Your task to perform on an android device: check the backup settings in the google photos Image 0: 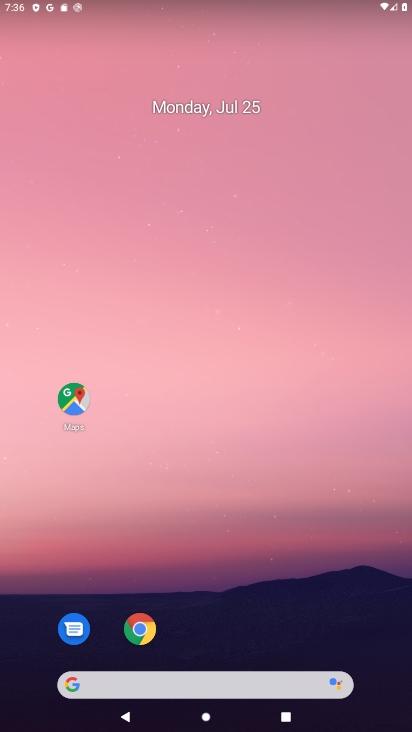
Step 0: drag from (247, 641) to (239, 315)
Your task to perform on an android device: check the backup settings in the google photos Image 1: 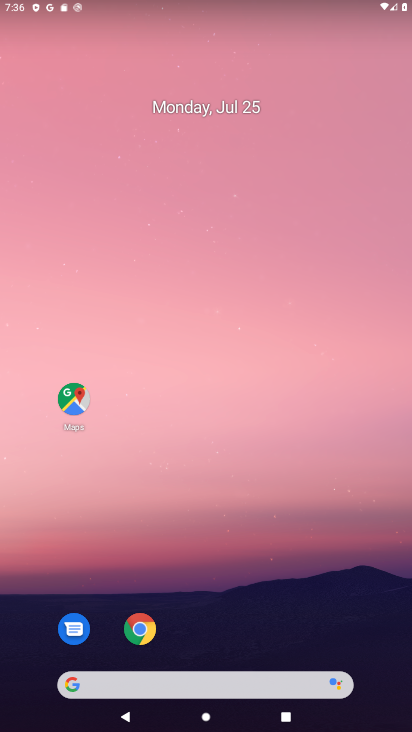
Step 1: drag from (237, 651) to (257, 24)
Your task to perform on an android device: check the backup settings in the google photos Image 2: 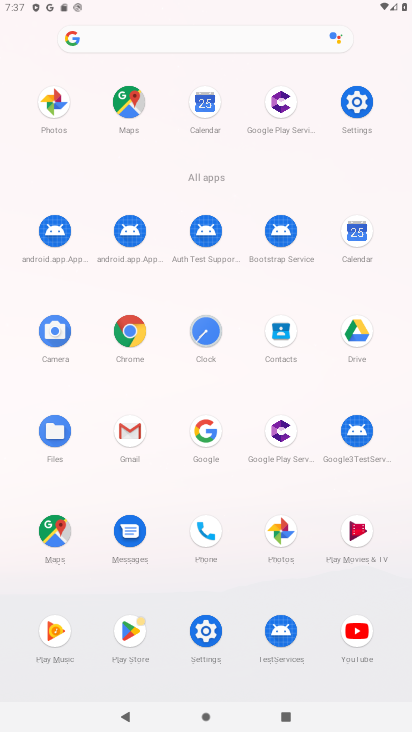
Step 2: click (59, 117)
Your task to perform on an android device: check the backup settings in the google photos Image 3: 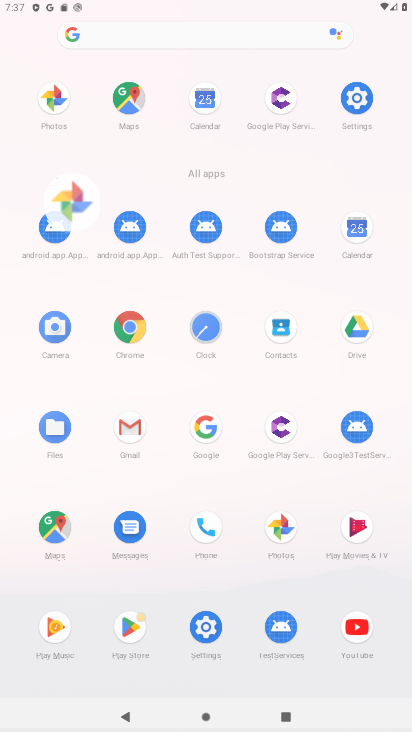
Step 3: task complete